Your task to perform on an android device: Open network settings Image 0: 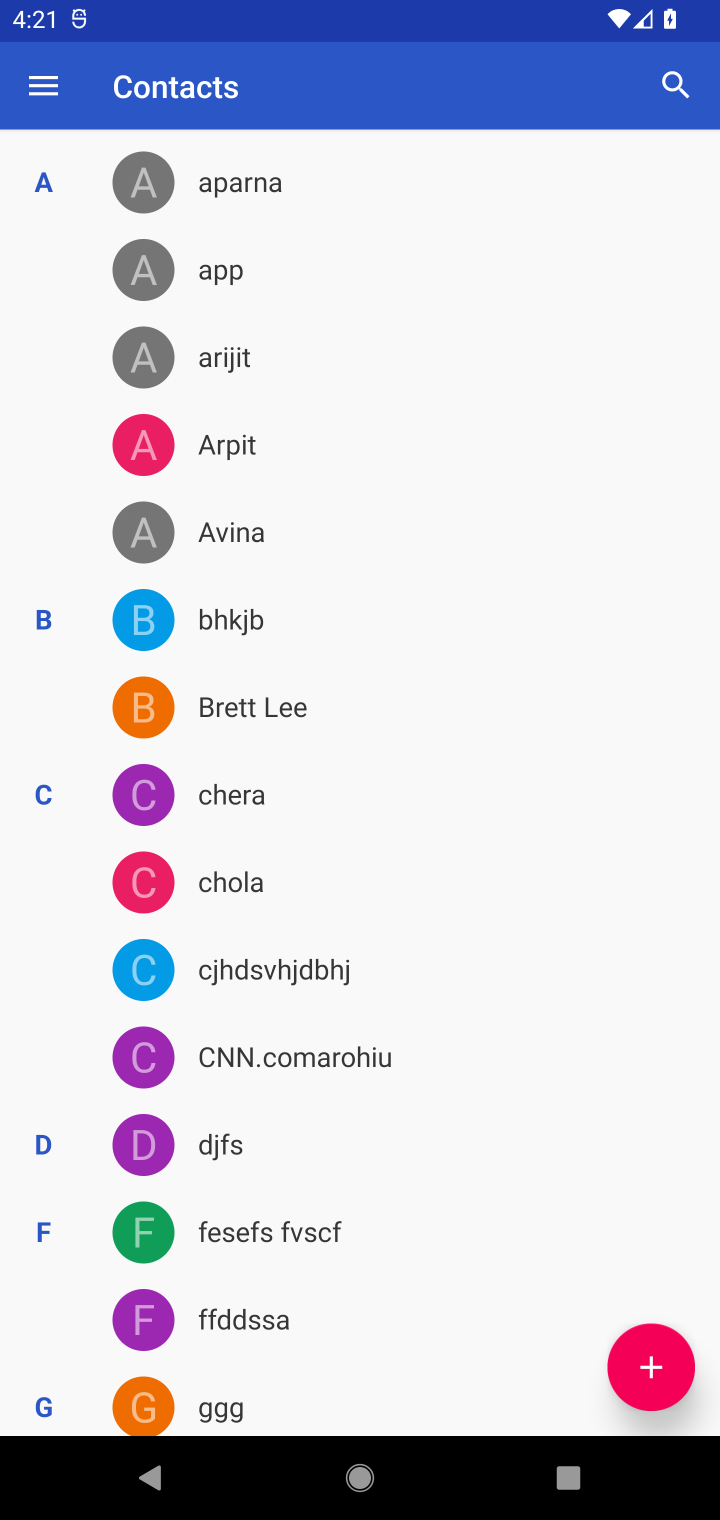
Step 0: drag from (317, 14) to (316, 851)
Your task to perform on an android device: Open network settings Image 1: 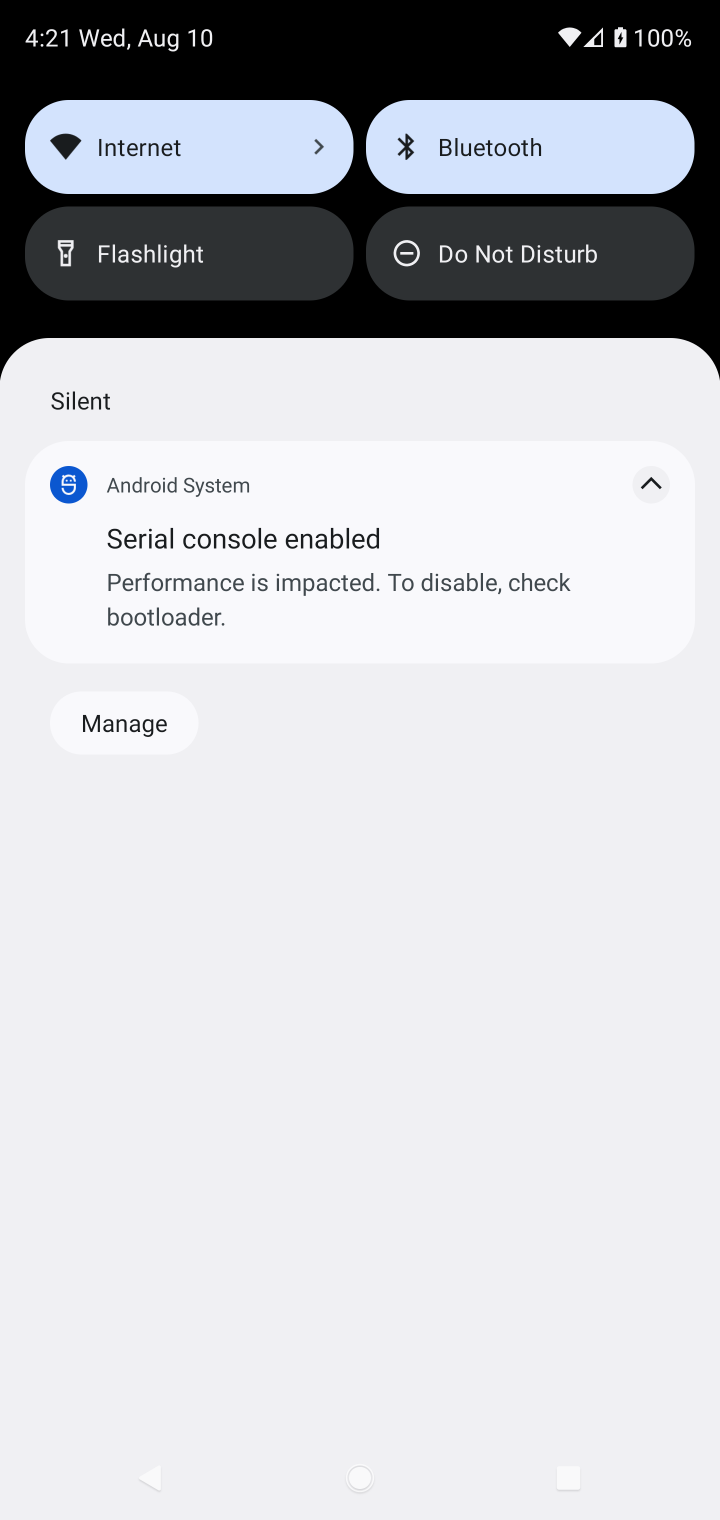
Step 1: click (300, 135)
Your task to perform on an android device: Open network settings Image 2: 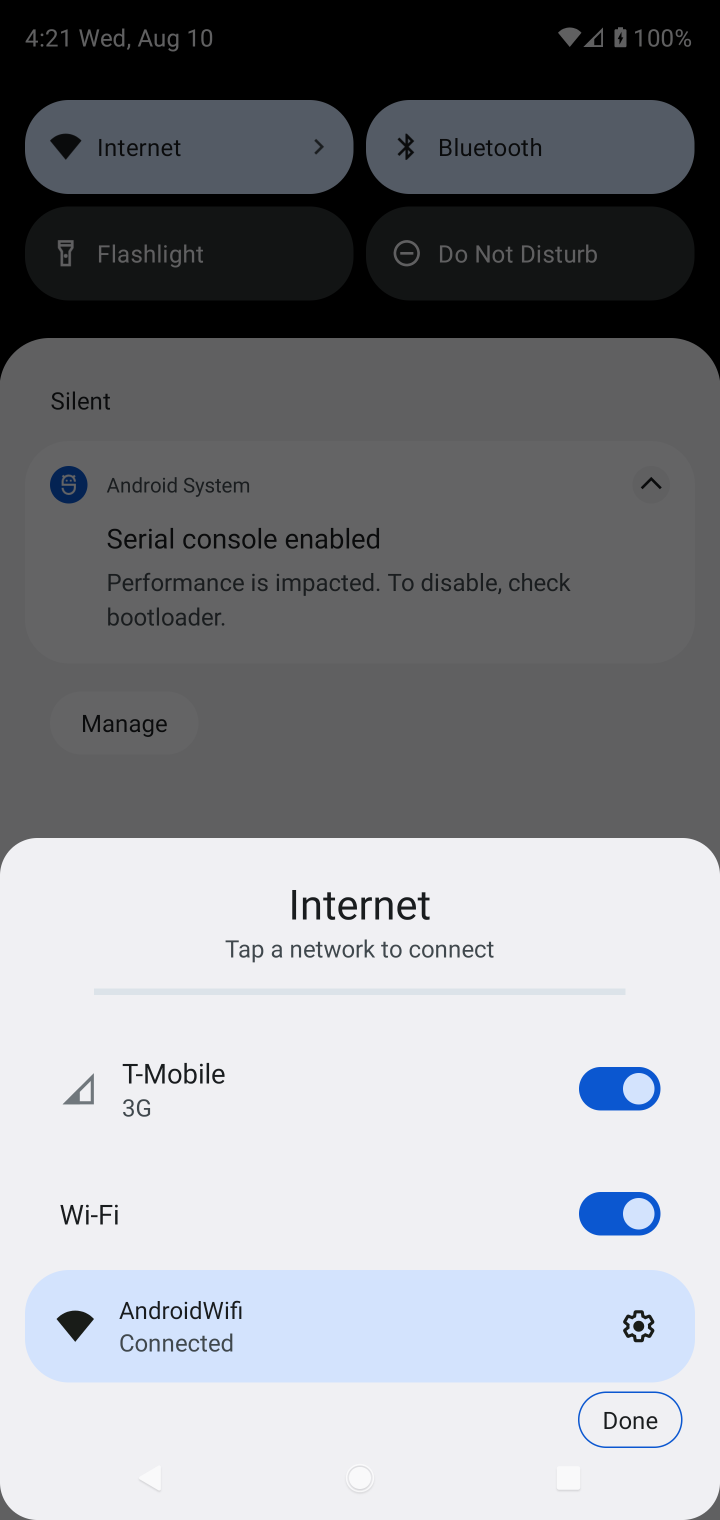
Step 2: click (630, 1332)
Your task to perform on an android device: Open network settings Image 3: 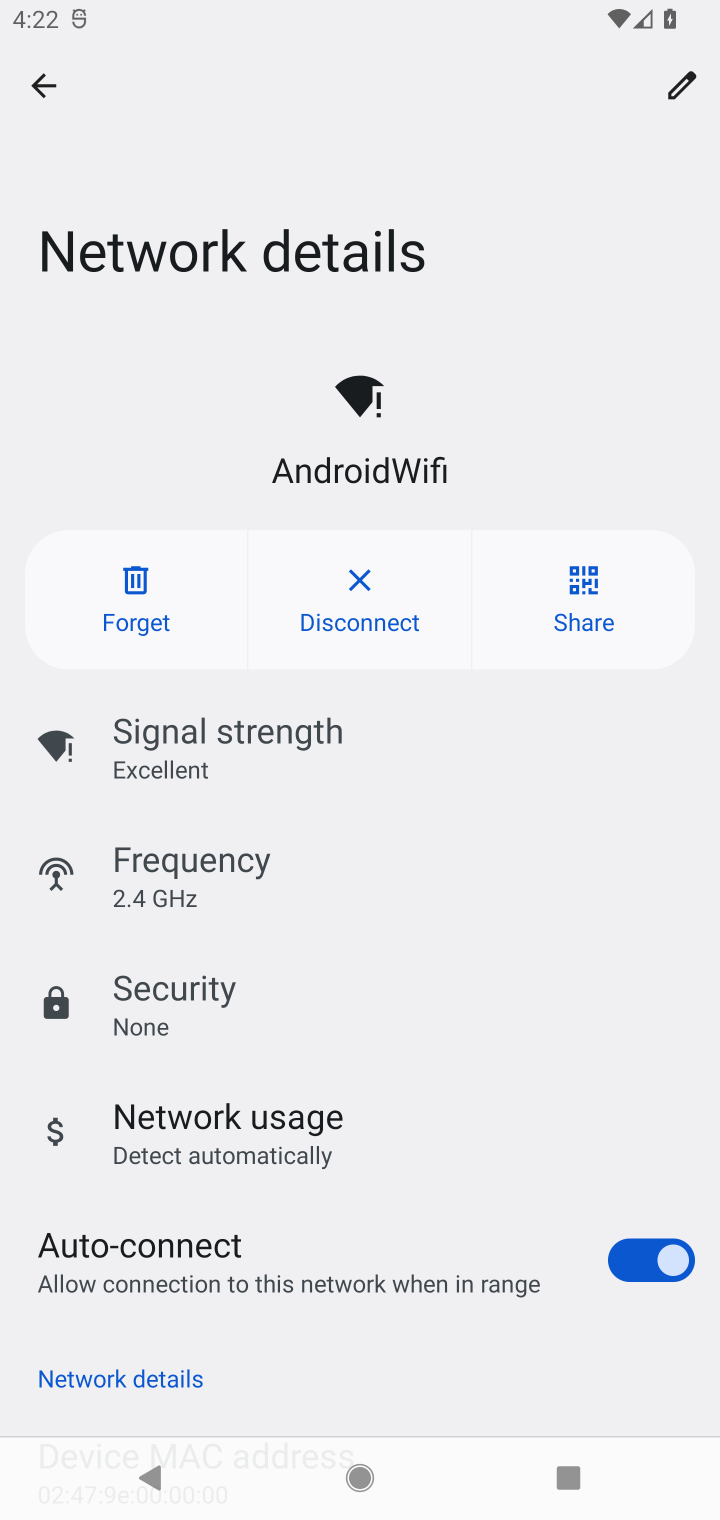
Step 3: task complete